Your task to perform on an android device: Open the map Image 0: 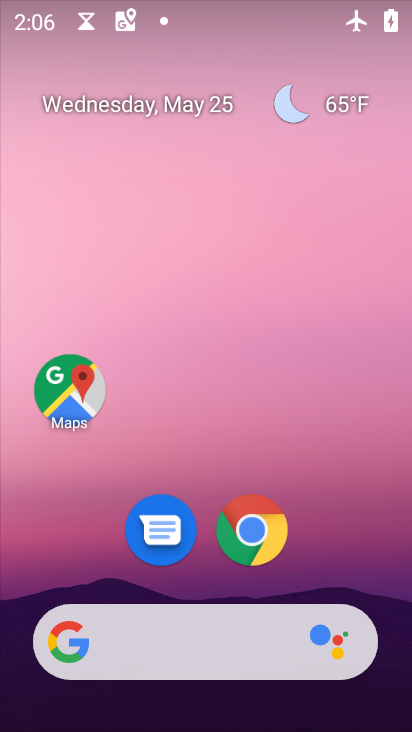
Step 0: click (67, 381)
Your task to perform on an android device: Open the map Image 1: 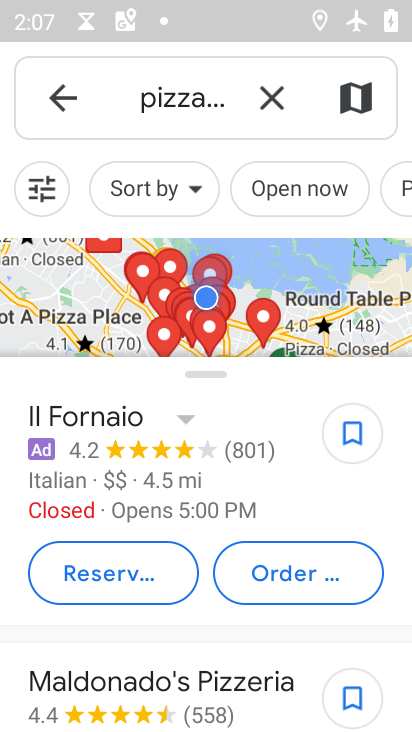
Step 1: task complete